Your task to perform on an android device: change the clock display to analog Image 0: 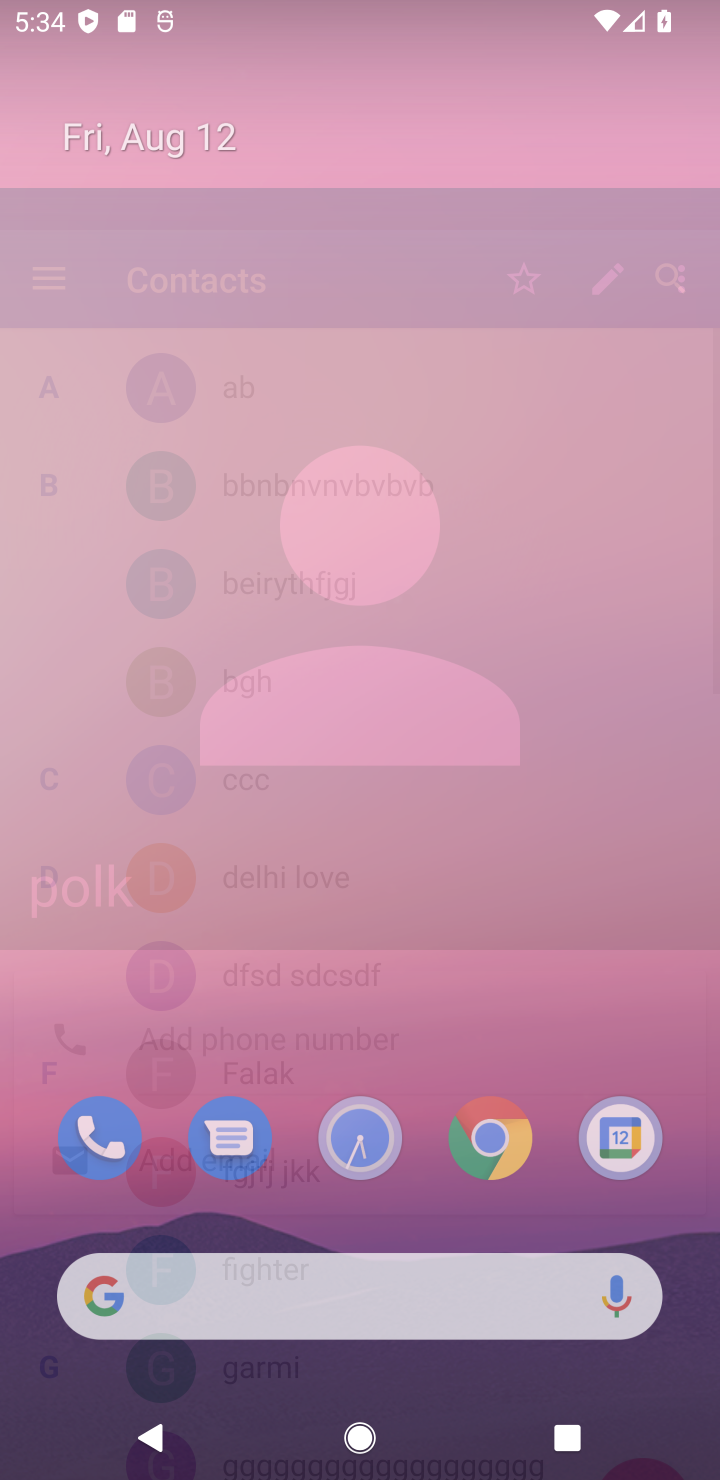
Step 0: press home button
Your task to perform on an android device: change the clock display to analog Image 1: 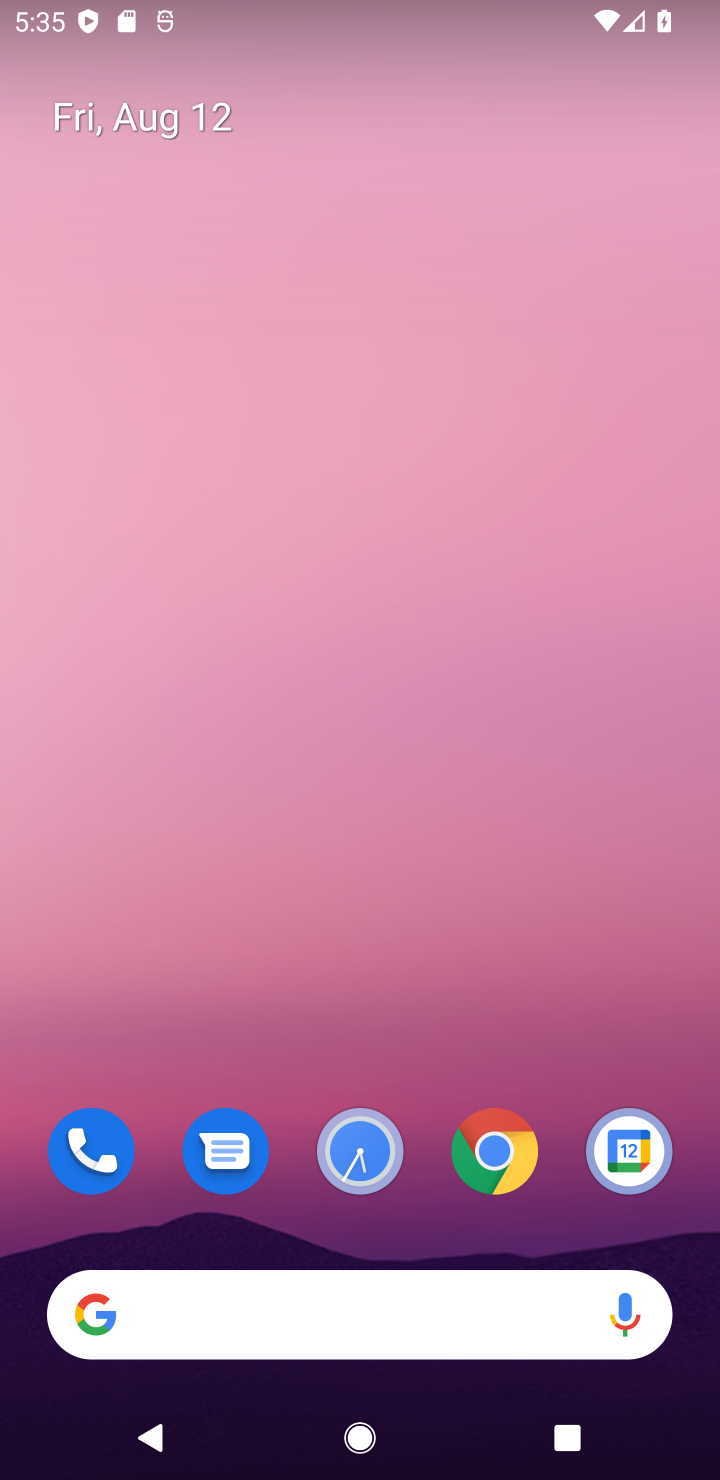
Step 1: drag from (433, 809) to (469, 9)
Your task to perform on an android device: change the clock display to analog Image 2: 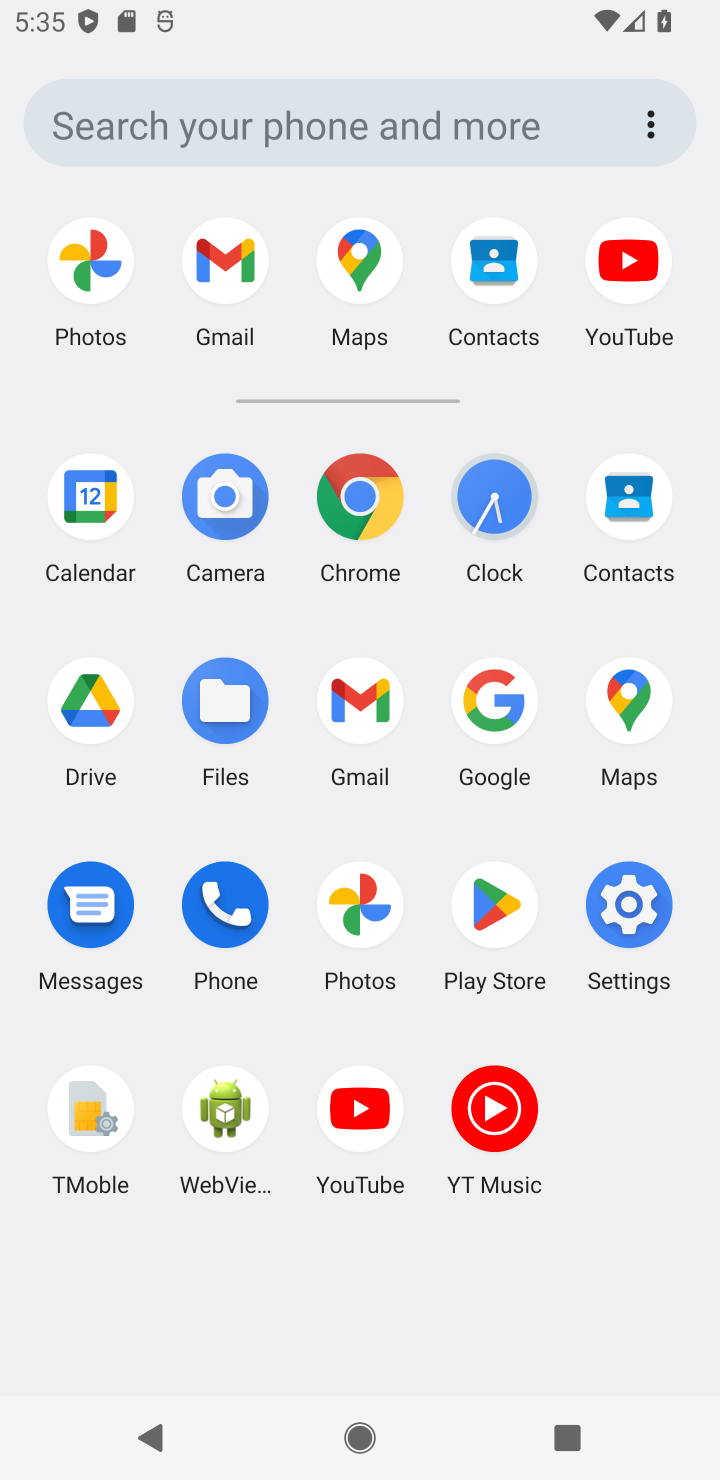
Step 2: click (506, 509)
Your task to perform on an android device: change the clock display to analog Image 3: 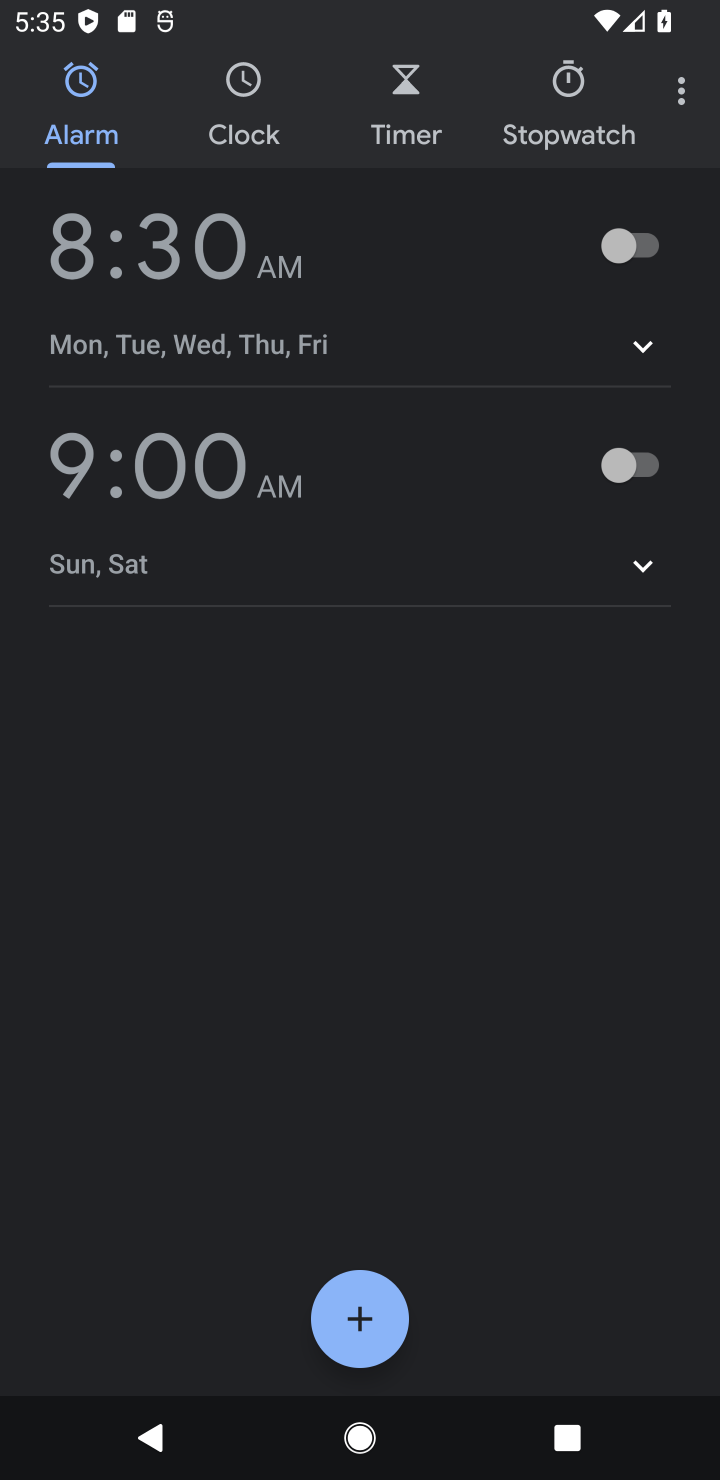
Step 3: click (709, 75)
Your task to perform on an android device: change the clock display to analog Image 4: 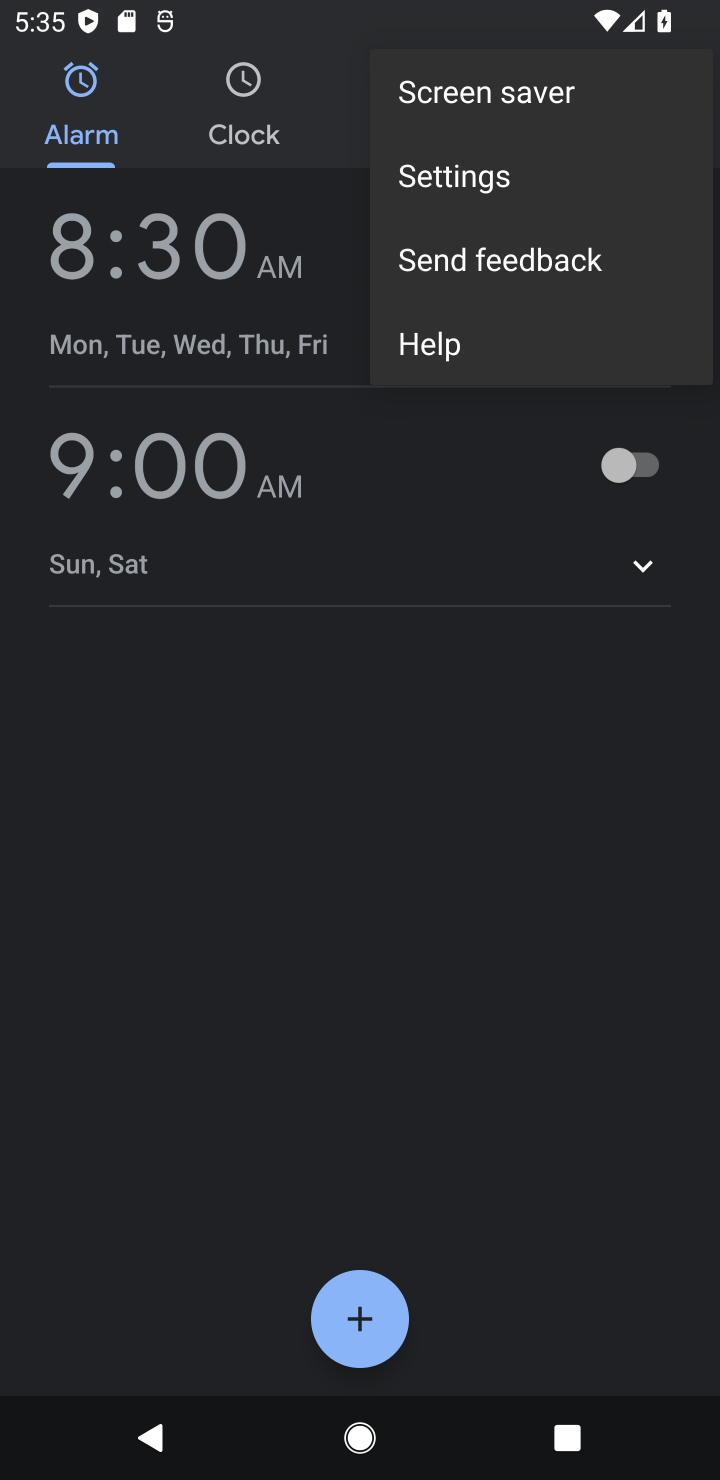
Step 4: click (451, 219)
Your task to perform on an android device: change the clock display to analog Image 5: 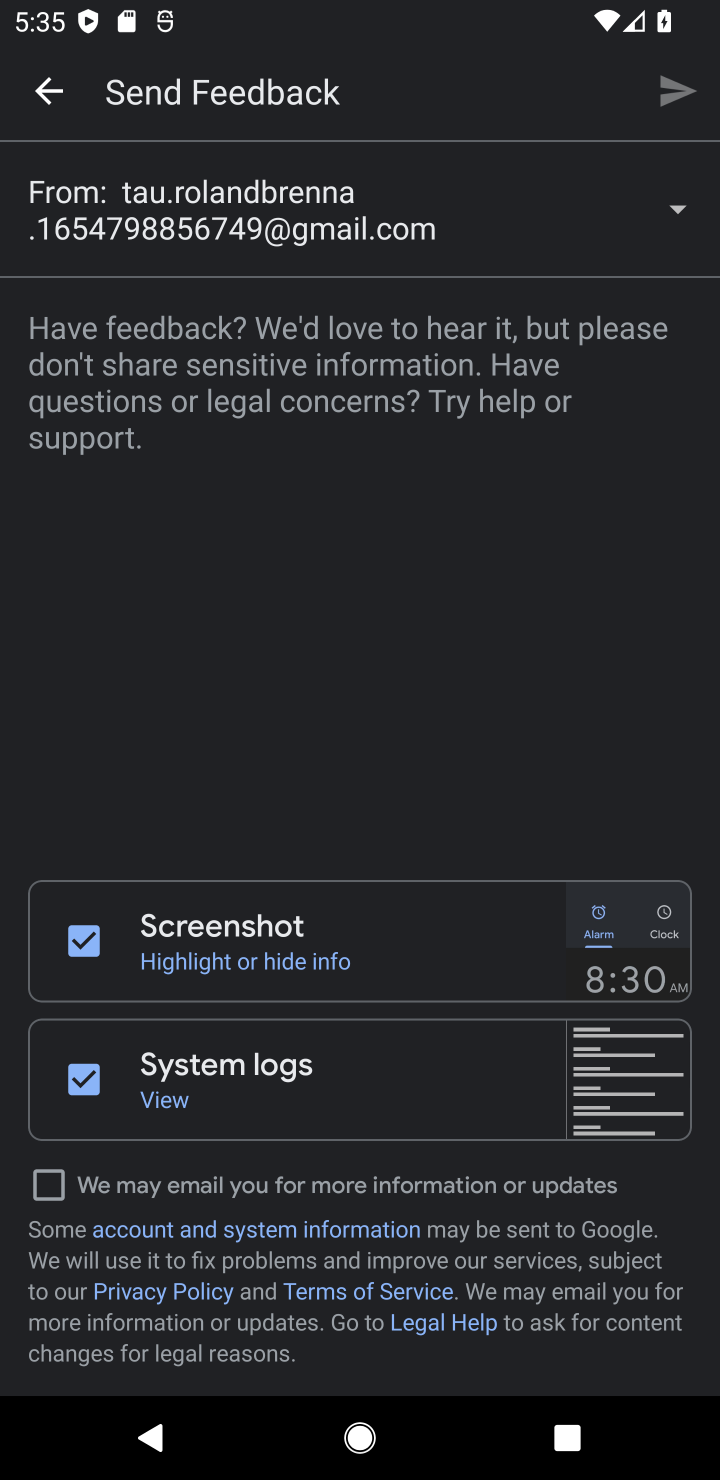
Step 5: click (58, 98)
Your task to perform on an android device: change the clock display to analog Image 6: 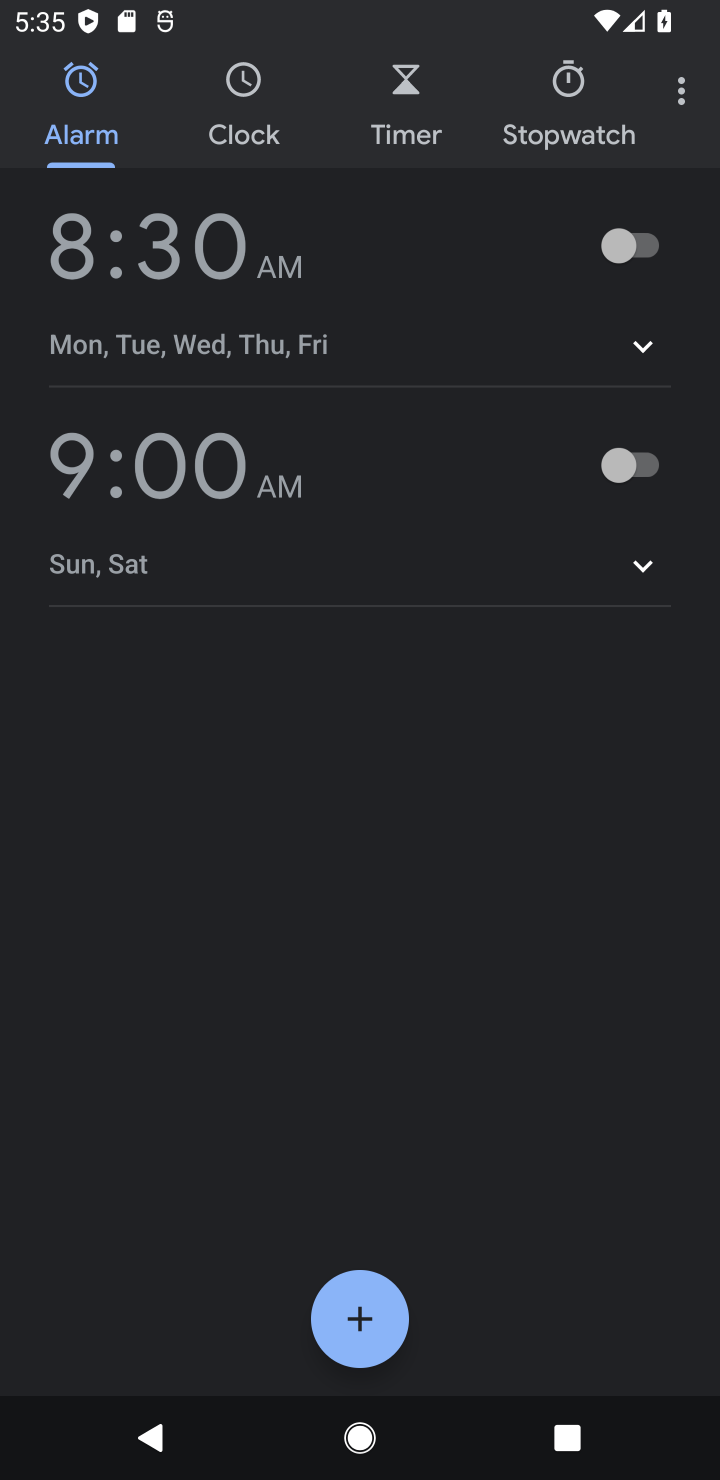
Step 6: click (683, 82)
Your task to perform on an android device: change the clock display to analog Image 7: 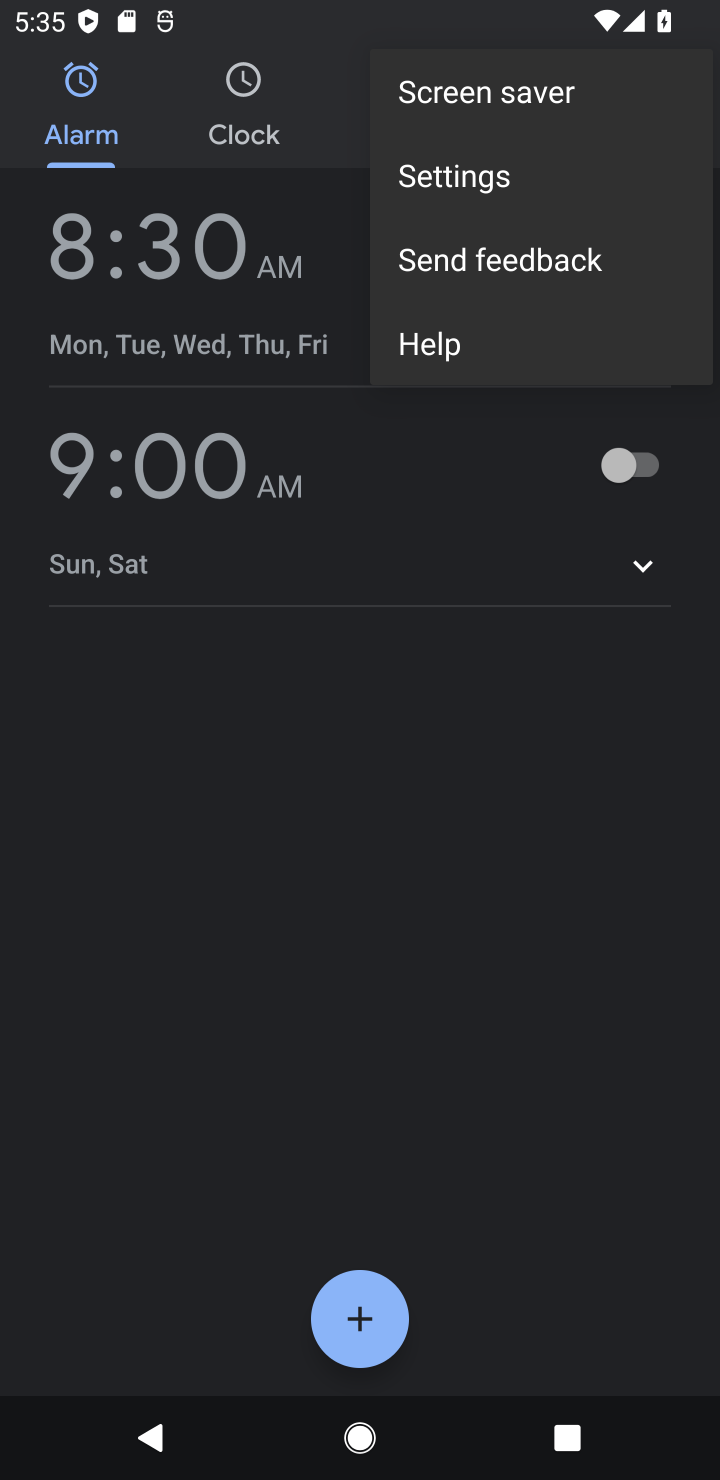
Step 7: click (477, 180)
Your task to perform on an android device: change the clock display to analog Image 8: 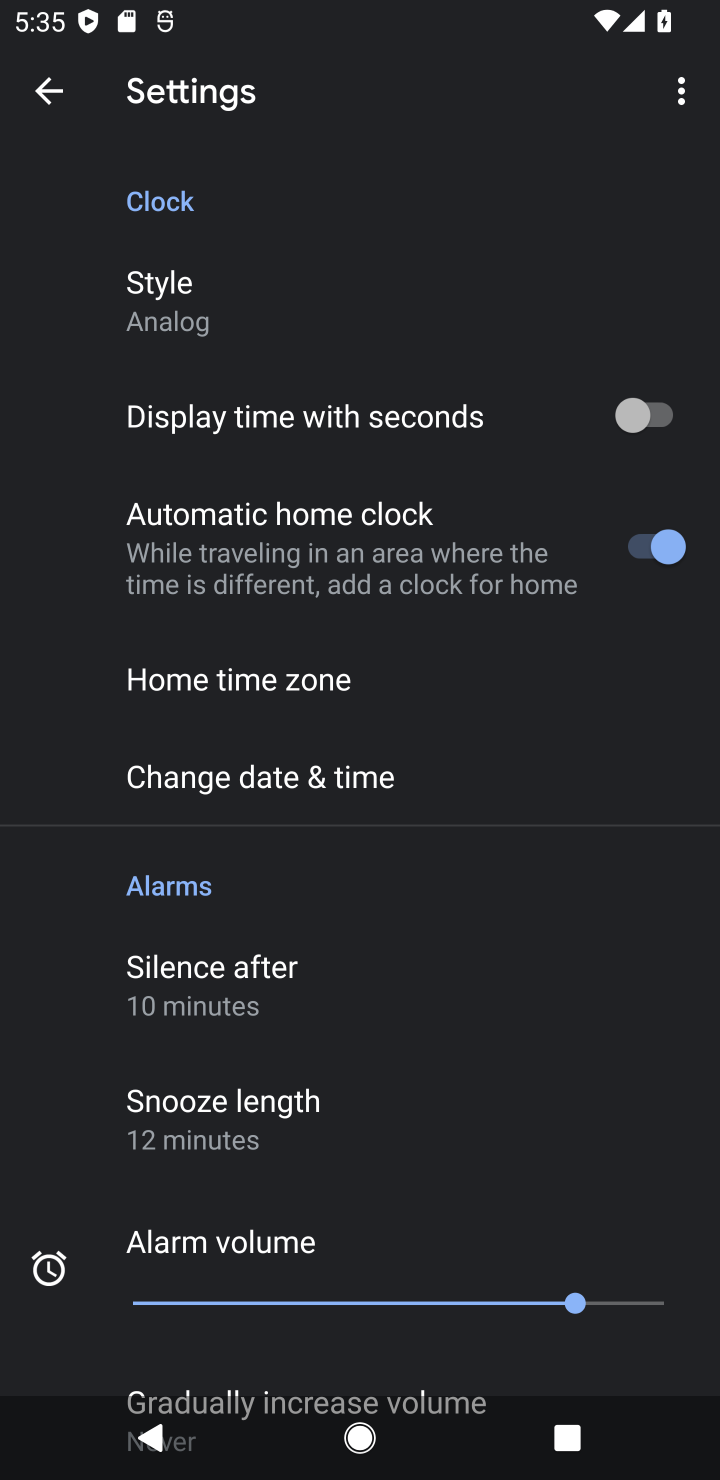
Step 8: task complete